Your task to perform on an android device: open app "Google Maps" Image 0: 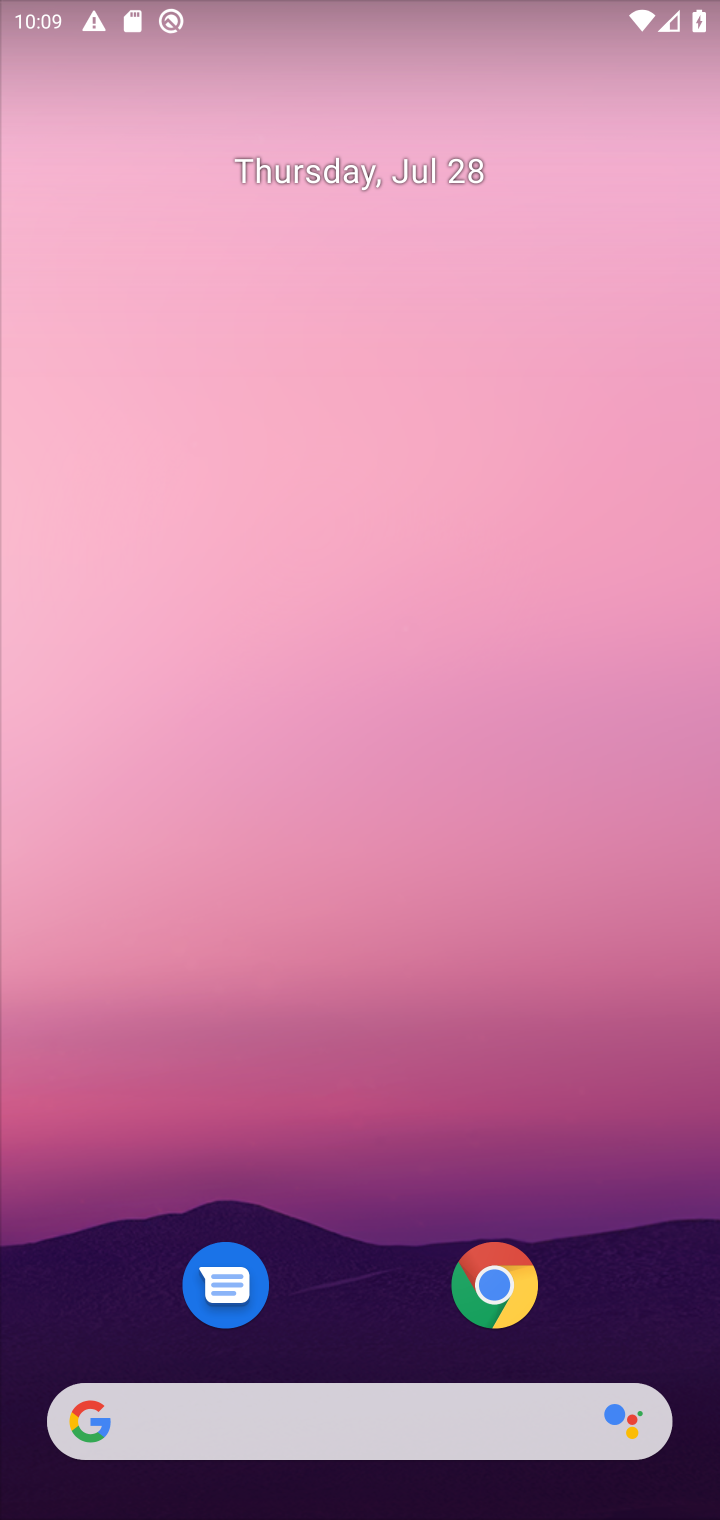
Step 0: drag from (270, 1421) to (333, 213)
Your task to perform on an android device: open app "Google Maps" Image 1: 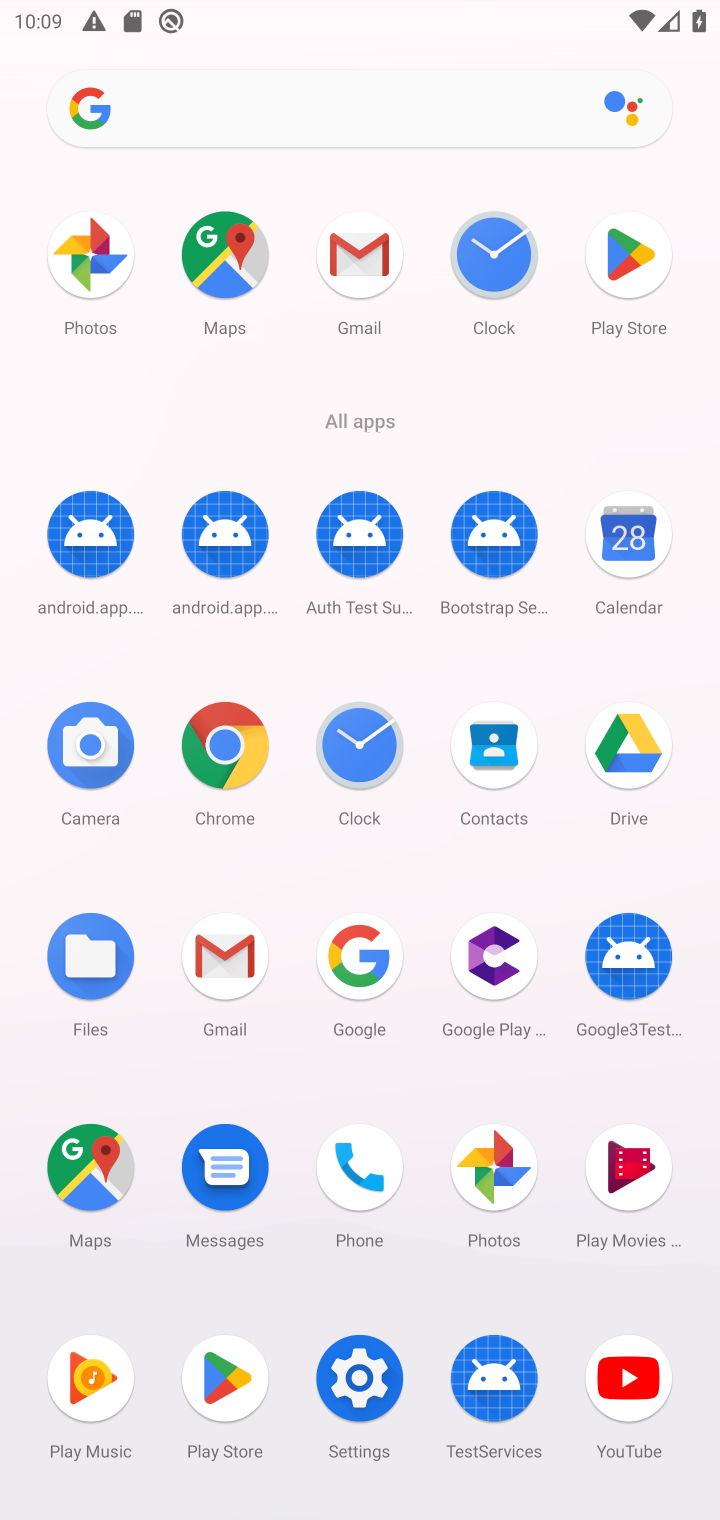
Step 1: click (87, 1172)
Your task to perform on an android device: open app "Google Maps" Image 2: 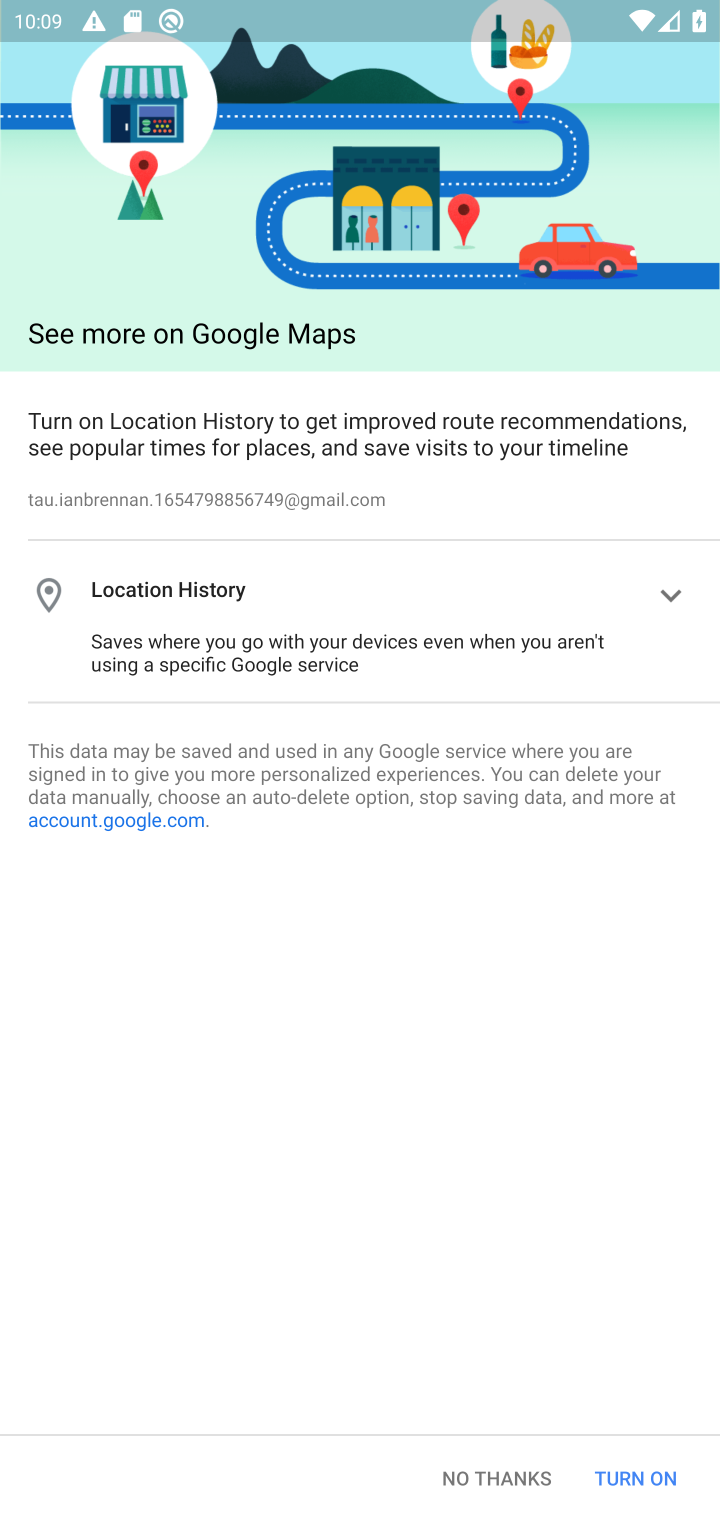
Step 2: click (519, 1478)
Your task to perform on an android device: open app "Google Maps" Image 3: 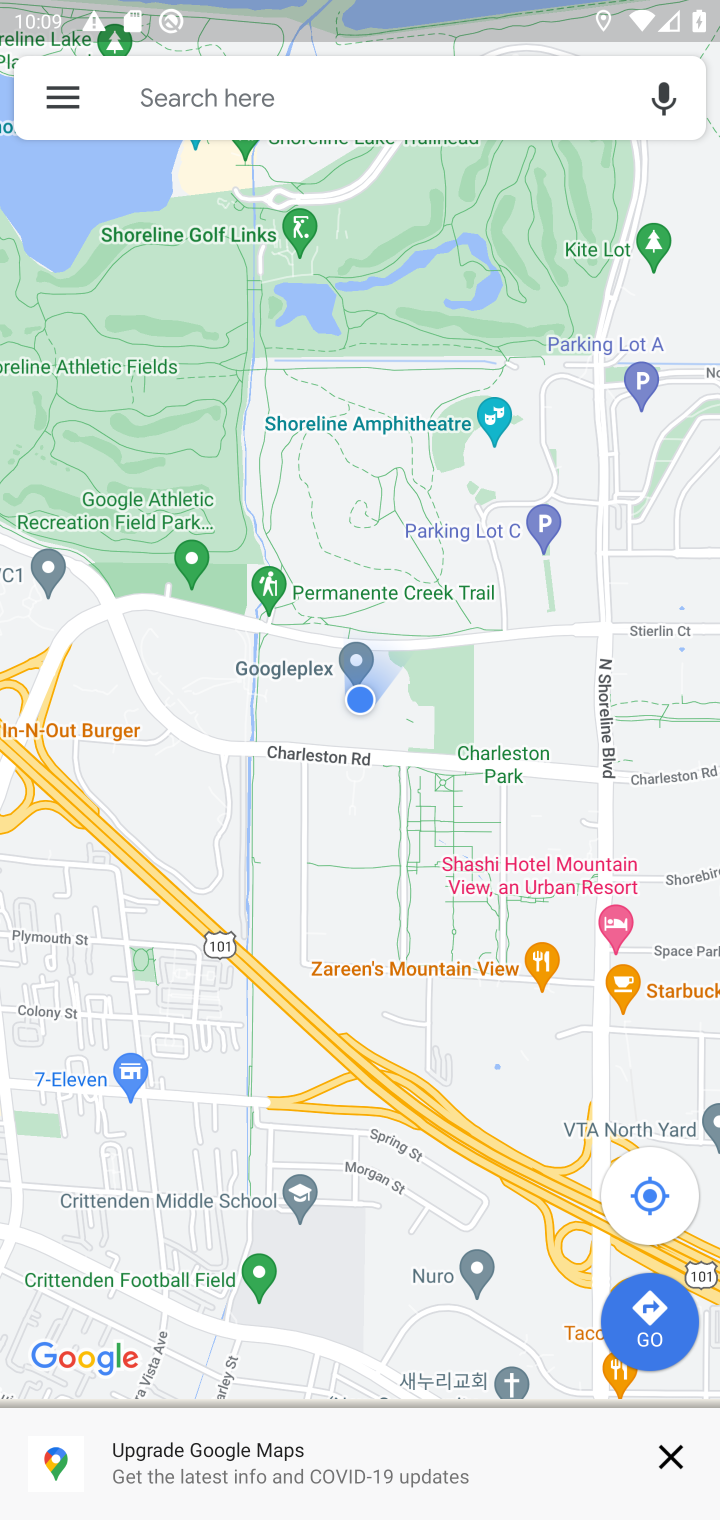
Step 3: task complete